Your task to perform on an android device: View the shopping cart on newegg. Search for "razer huntsman" on newegg, select the first entry, add it to the cart, then select checkout. Image 0: 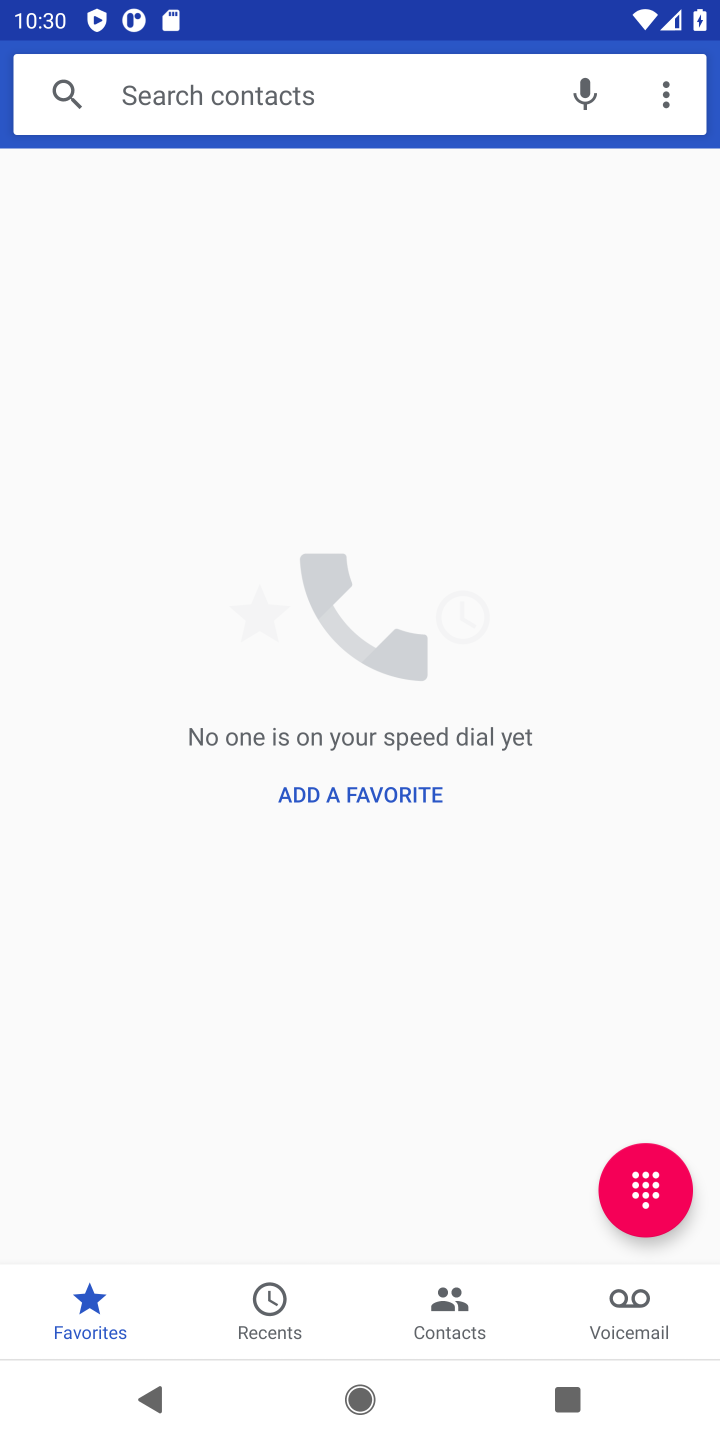
Step 0: press home button
Your task to perform on an android device: View the shopping cart on newegg. Search for "razer huntsman" on newegg, select the first entry, add it to the cart, then select checkout. Image 1: 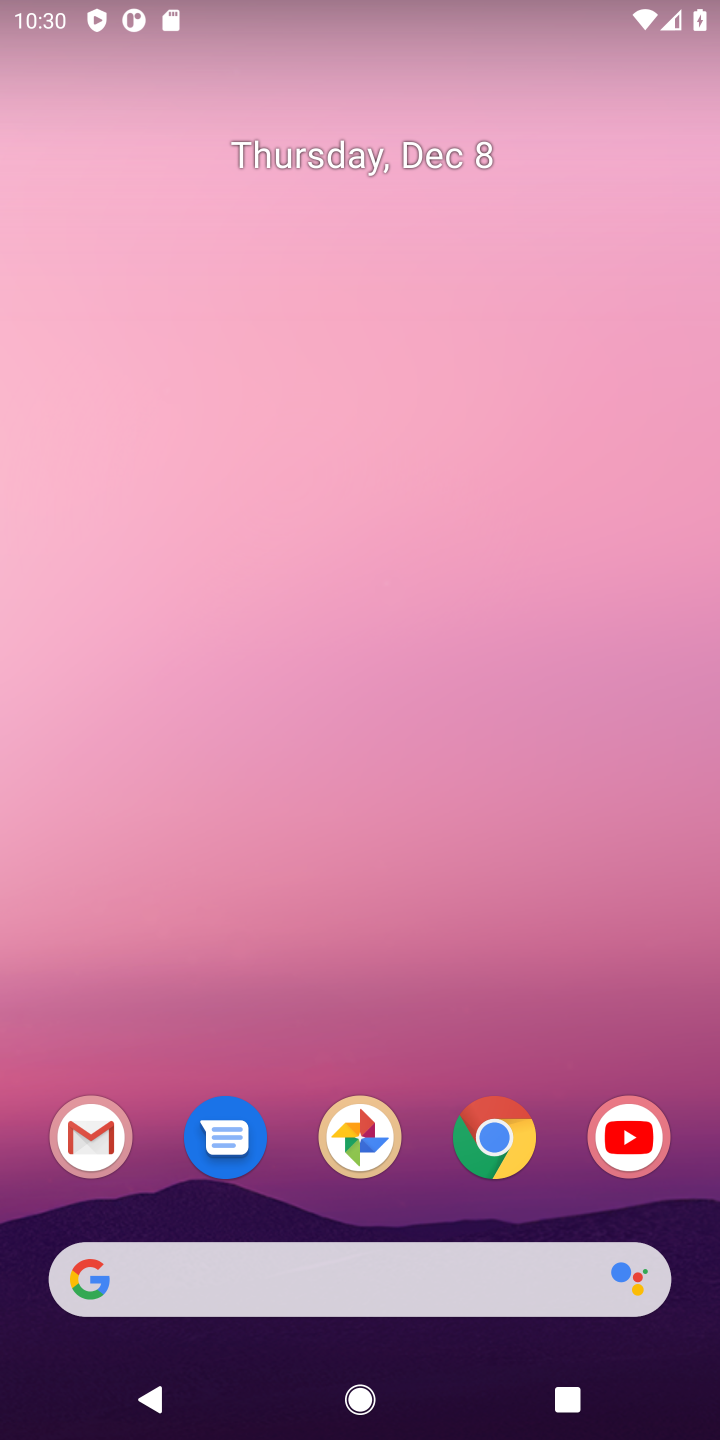
Step 1: click (499, 1123)
Your task to perform on an android device: View the shopping cart on newegg. Search for "razer huntsman" on newegg, select the first entry, add it to the cart, then select checkout. Image 2: 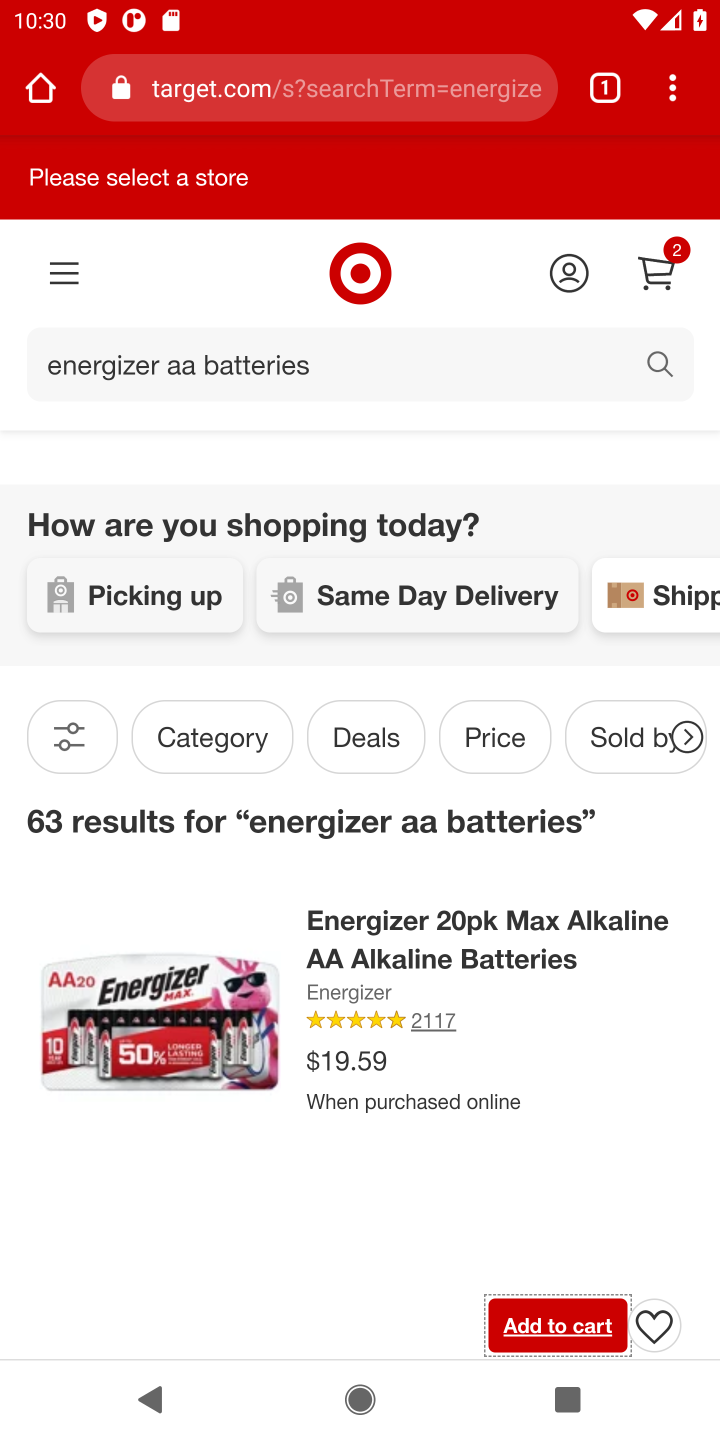
Step 2: click (398, 77)
Your task to perform on an android device: View the shopping cart on newegg. Search for "razer huntsman" on newegg, select the first entry, add it to the cart, then select checkout. Image 3: 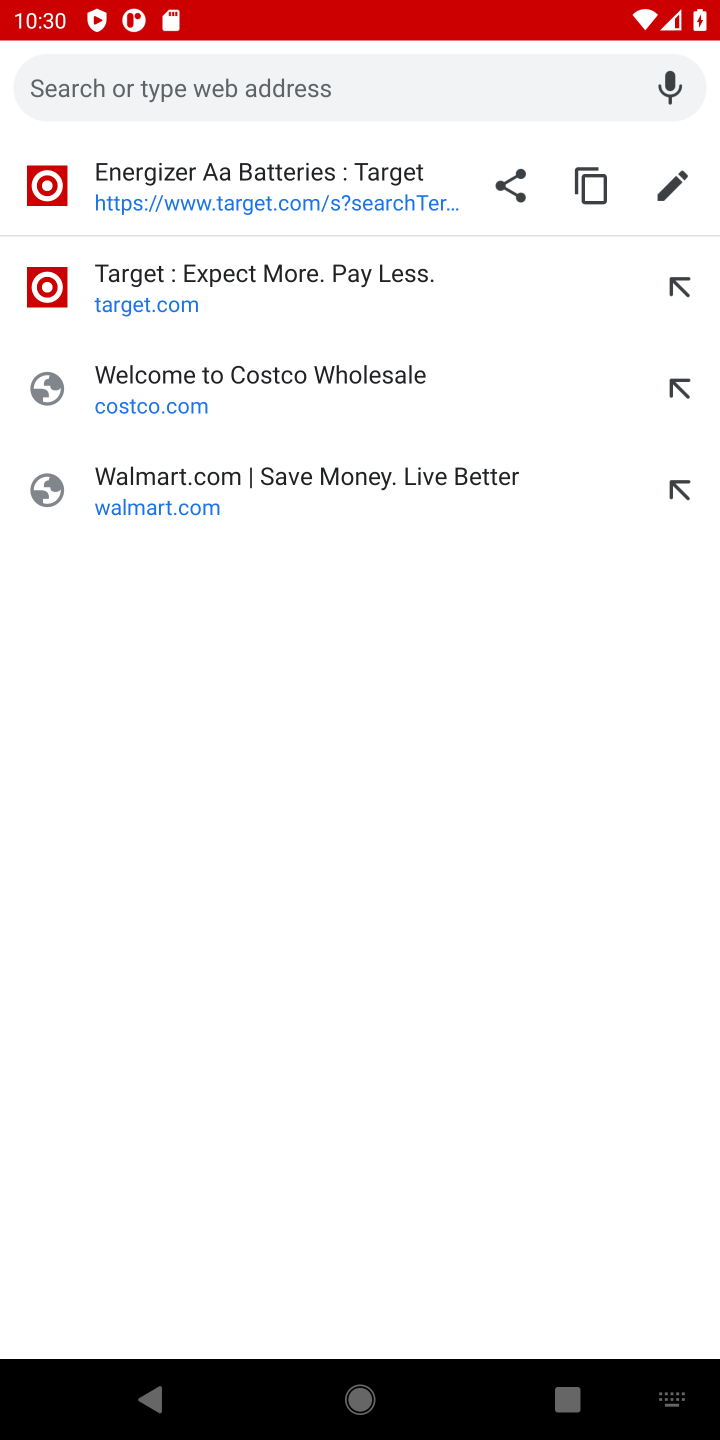
Step 3: type "newegg"
Your task to perform on an android device: View the shopping cart on newegg. Search for "razer huntsman" on newegg, select the first entry, add it to the cart, then select checkout. Image 4: 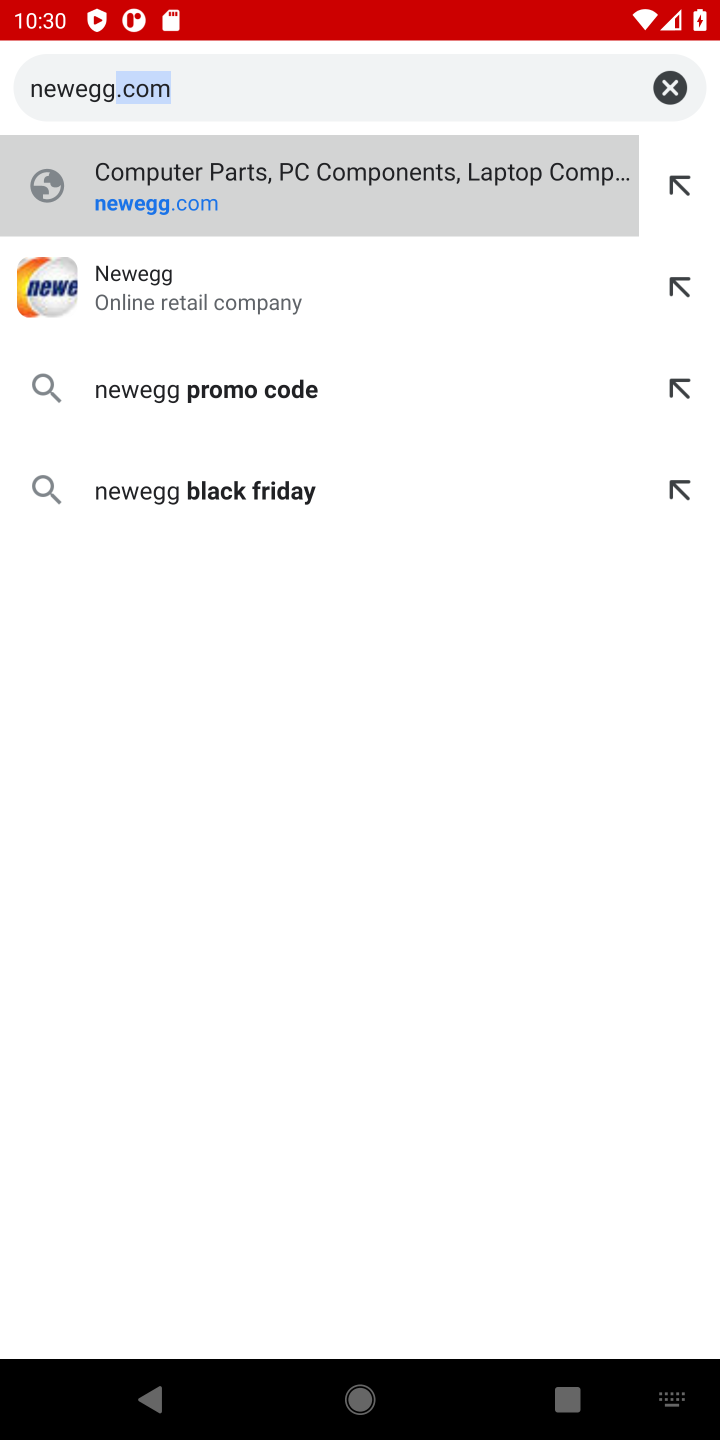
Step 4: click (176, 187)
Your task to perform on an android device: View the shopping cart on newegg. Search for "razer huntsman" on newegg, select the first entry, add it to the cart, then select checkout. Image 5: 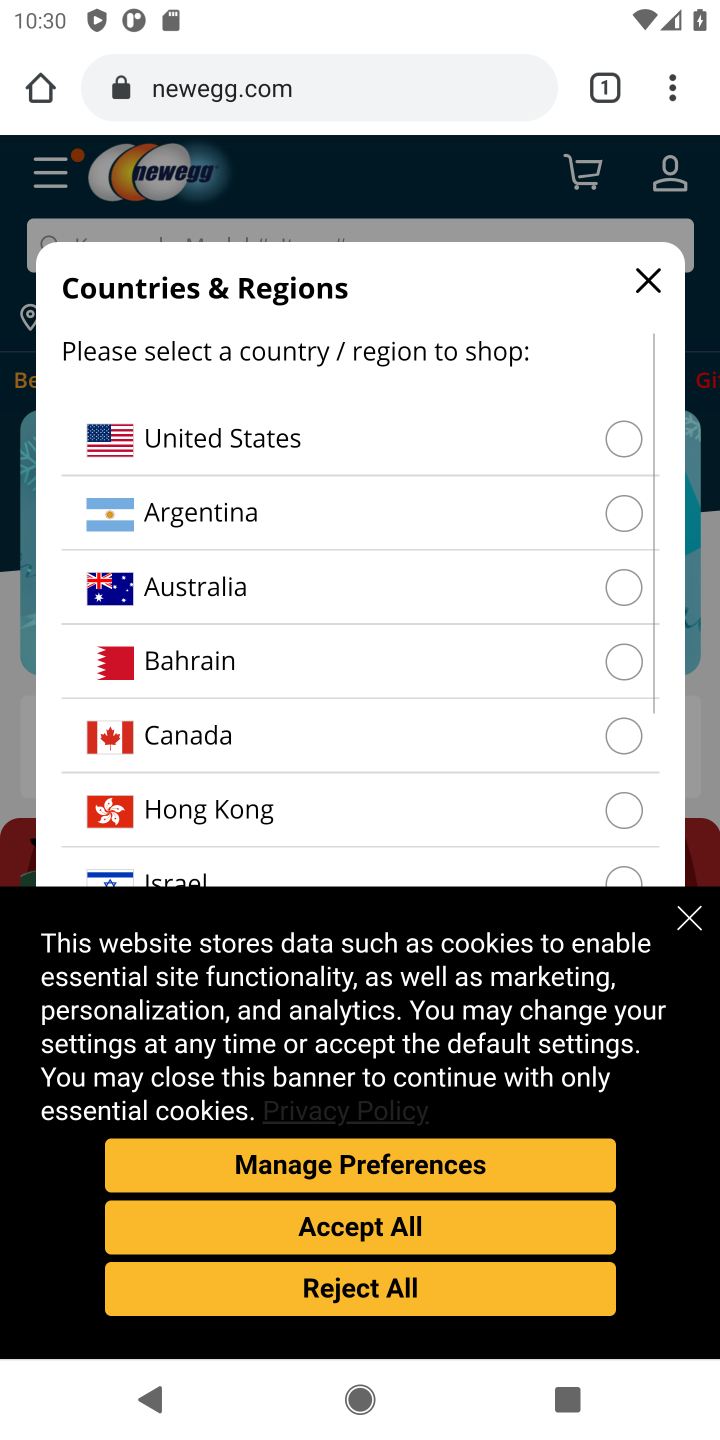
Step 5: click (689, 918)
Your task to perform on an android device: View the shopping cart on newegg. Search for "razer huntsman" on newegg, select the first entry, add it to the cart, then select checkout. Image 6: 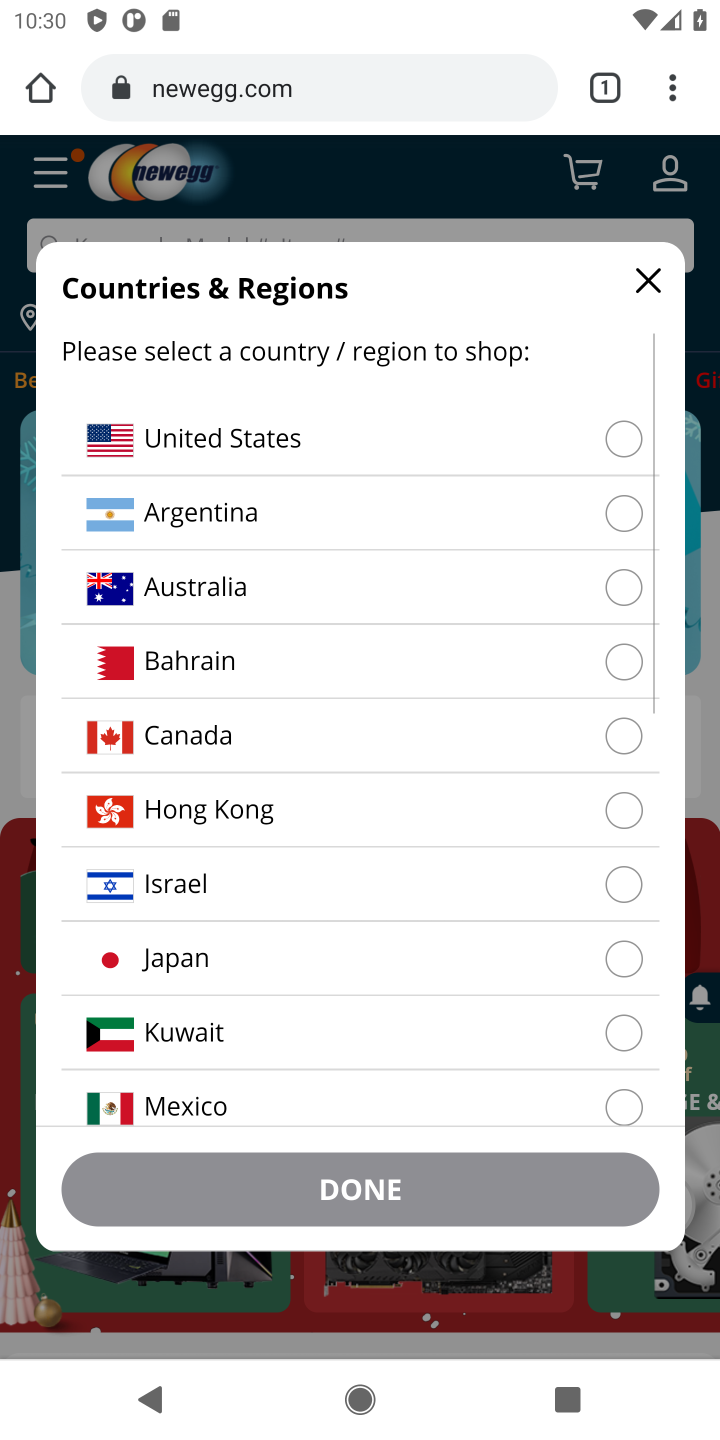
Step 6: click (639, 283)
Your task to perform on an android device: View the shopping cart on newegg. Search for "razer huntsman" on newegg, select the first entry, add it to the cart, then select checkout. Image 7: 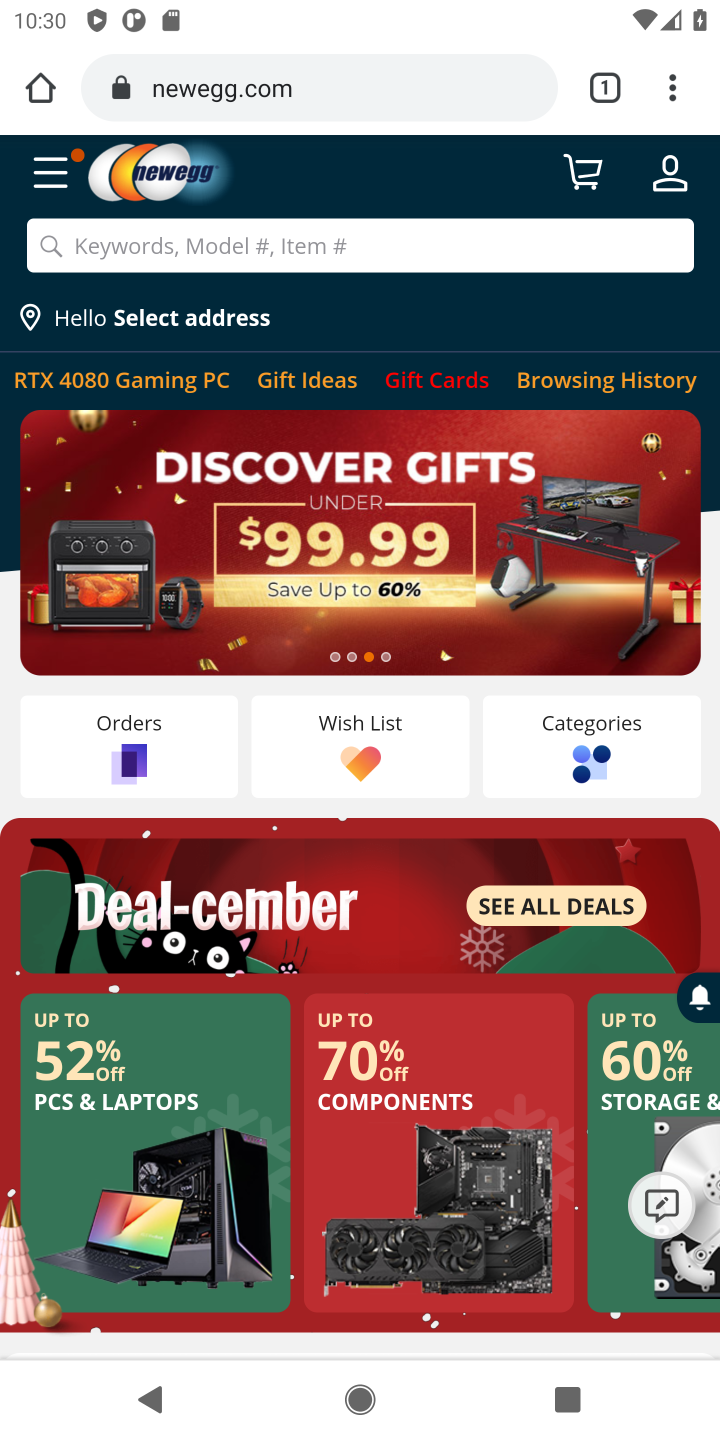
Step 7: click (370, 244)
Your task to perform on an android device: View the shopping cart on newegg. Search for "razer huntsman" on newegg, select the first entry, add it to the cart, then select checkout. Image 8: 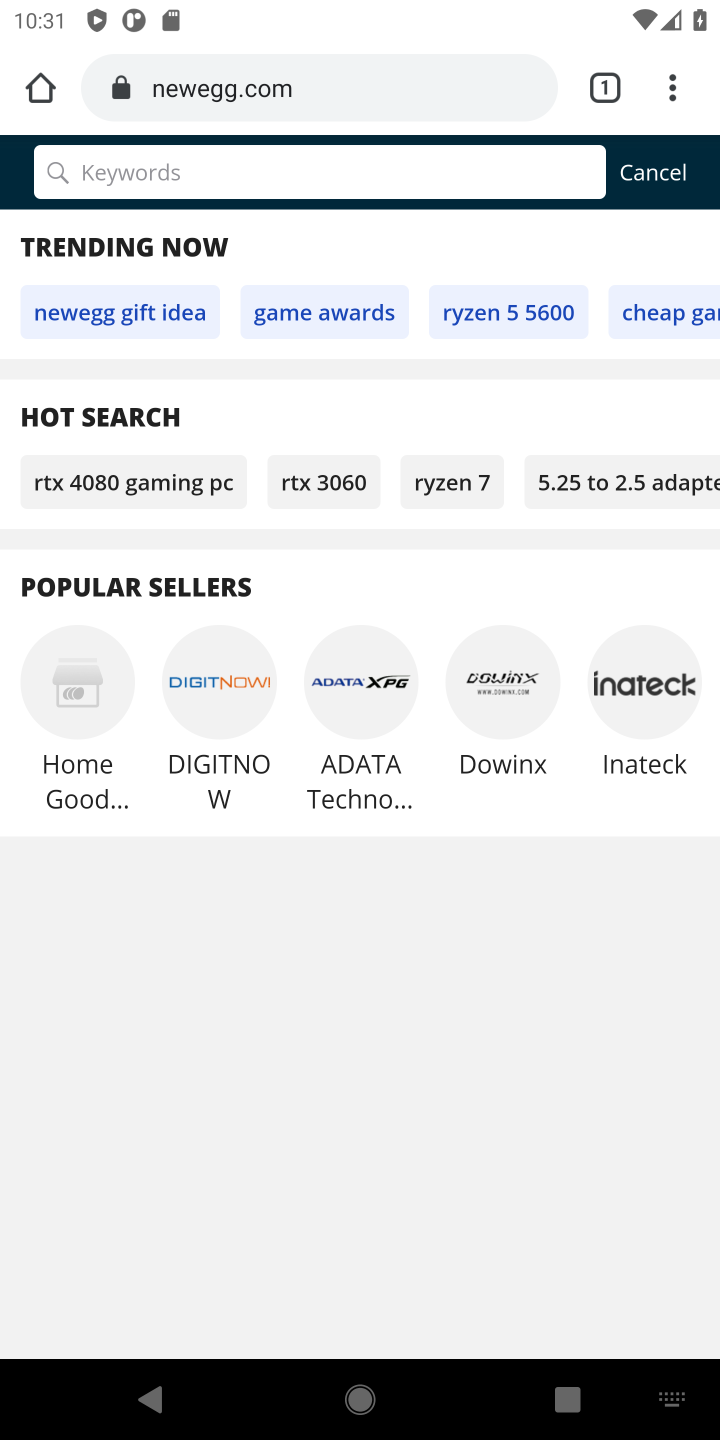
Step 8: type "razer huntsman"
Your task to perform on an android device: View the shopping cart on newegg. Search for "razer huntsman" on newegg, select the first entry, add it to the cart, then select checkout. Image 9: 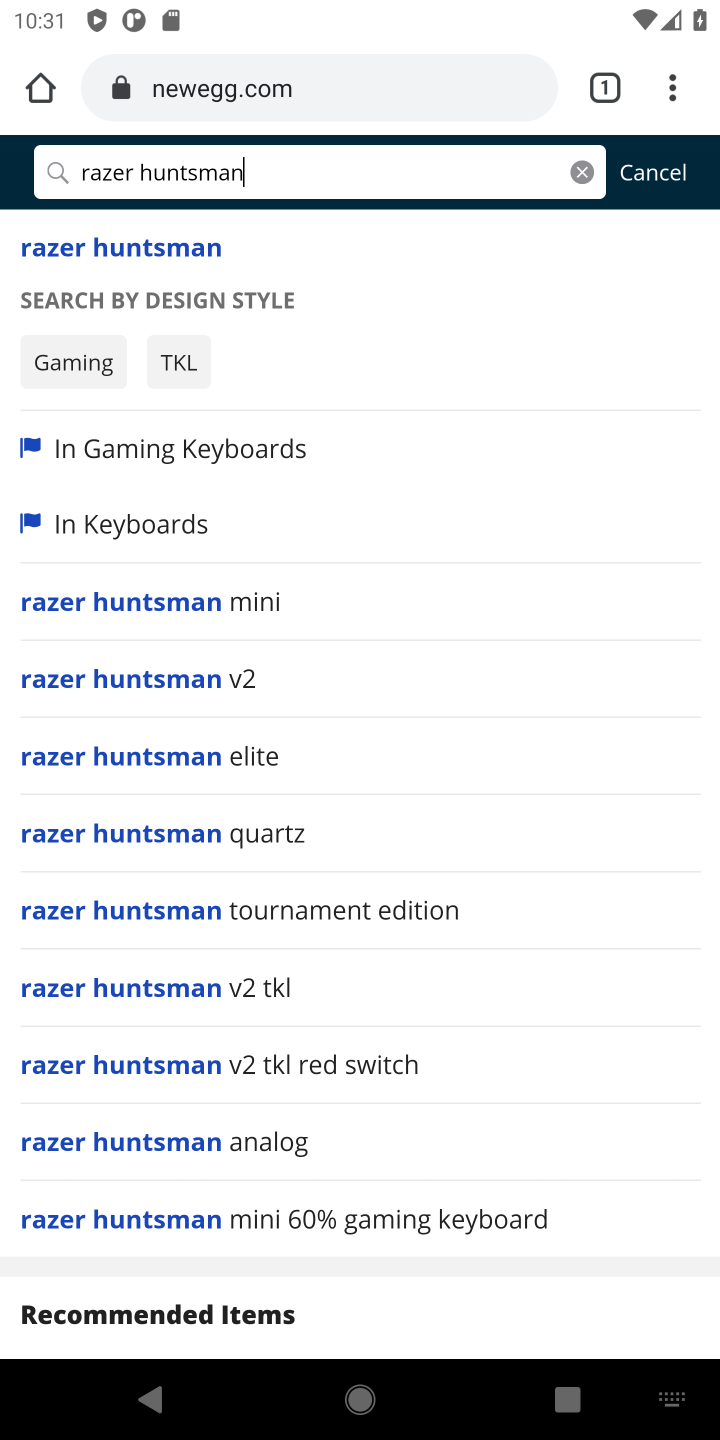
Step 9: click (178, 256)
Your task to perform on an android device: View the shopping cart on newegg. Search for "razer huntsman" on newegg, select the first entry, add it to the cart, then select checkout. Image 10: 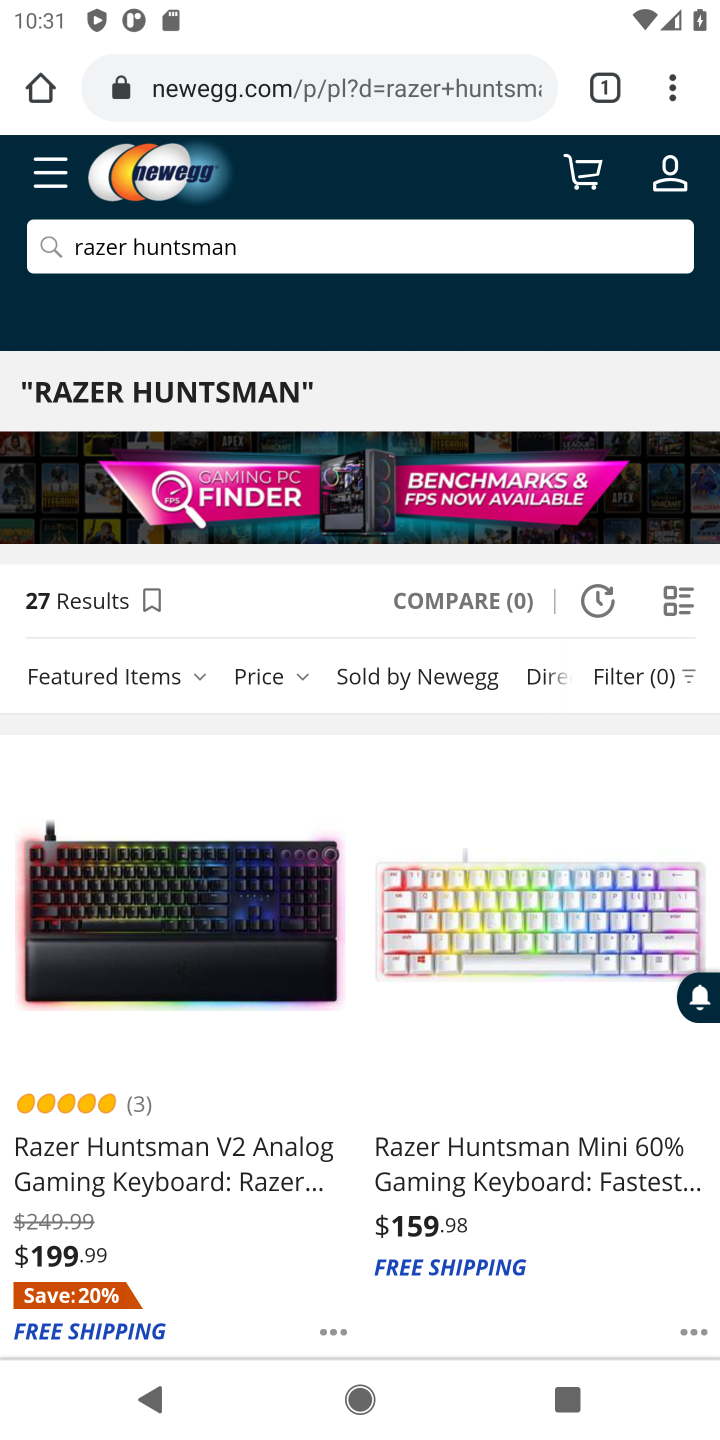
Step 10: click (197, 813)
Your task to perform on an android device: View the shopping cart on newegg. Search for "razer huntsman" on newegg, select the first entry, add it to the cart, then select checkout. Image 11: 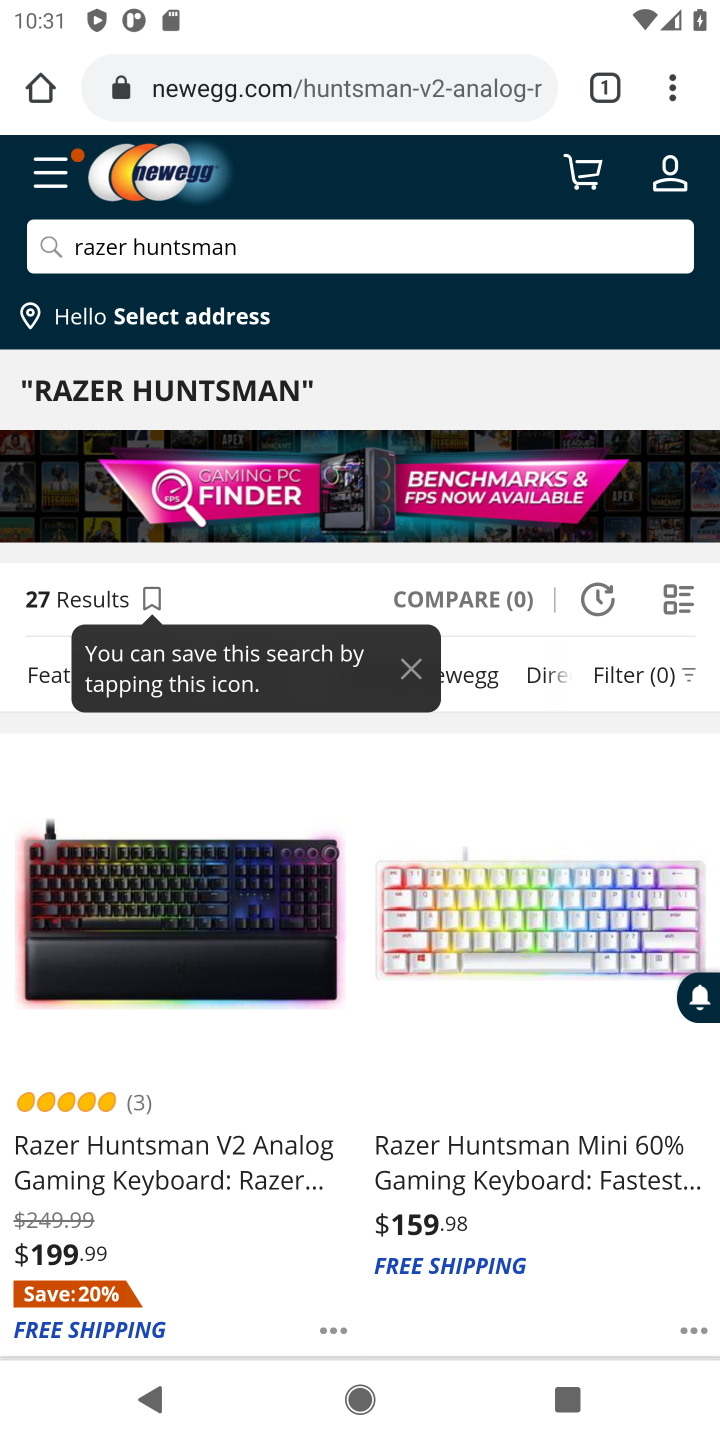
Step 11: click (227, 918)
Your task to perform on an android device: View the shopping cart on newegg. Search for "razer huntsman" on newegg, select the first entry, add it to the cart, then select checkout. Image 12: 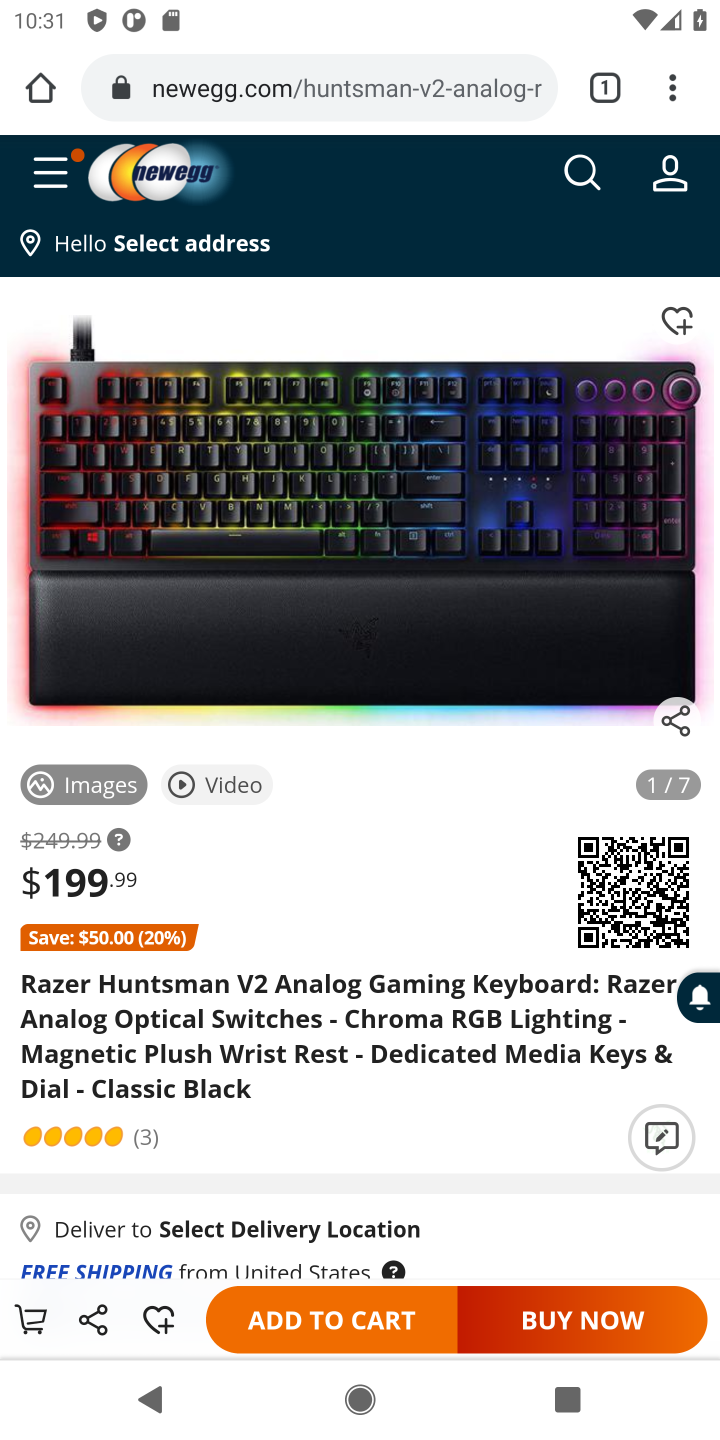
Step 12: click (315, 1313)
Your task to perform on an android device: View the shopping cart on newegg. Search for "razer huntsman" on newegg, select the first entry, add it to the cart, then select checkout. Image 13: 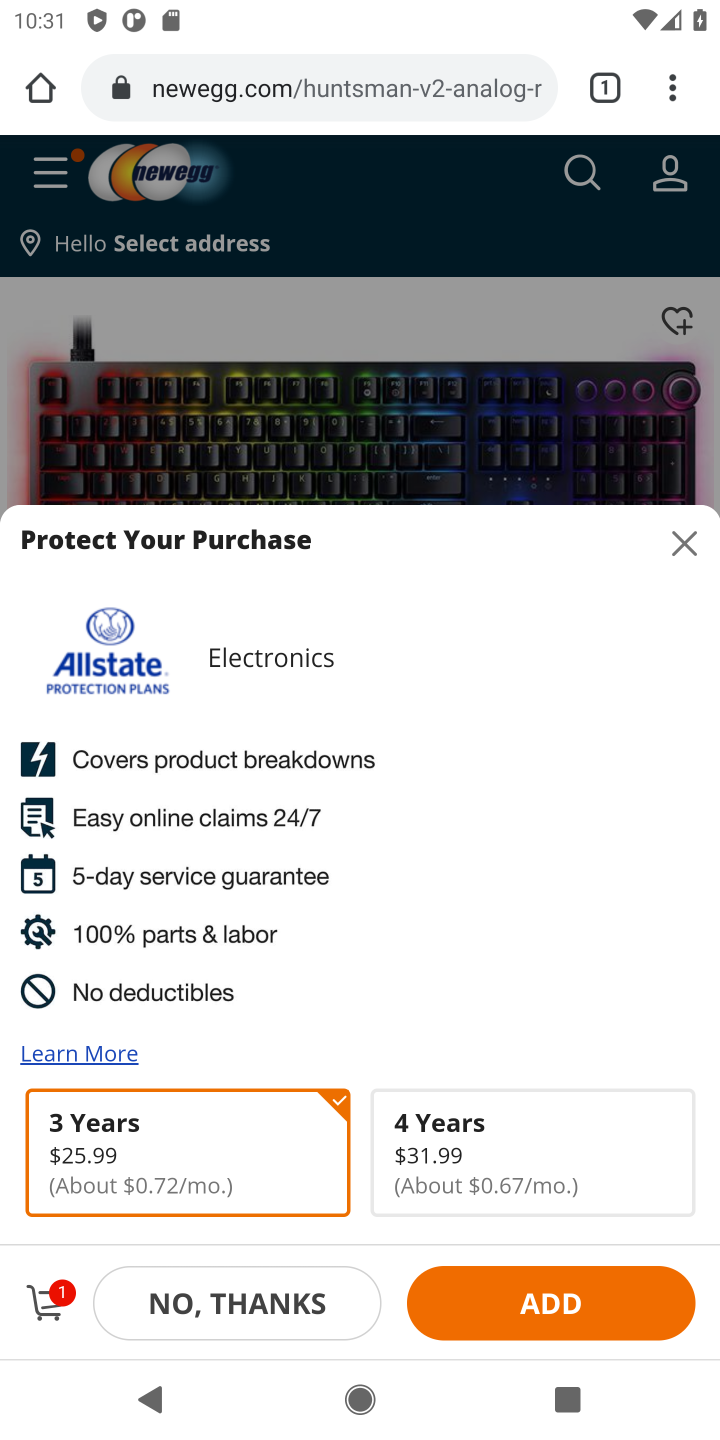
Step 13: click (270, 1309)
Your task to perform on an android device: View the shopping cart on newegg. Search for "razer huntsman" on newegg, select the first entry, add it to the cart, then select checkout. Image 14: 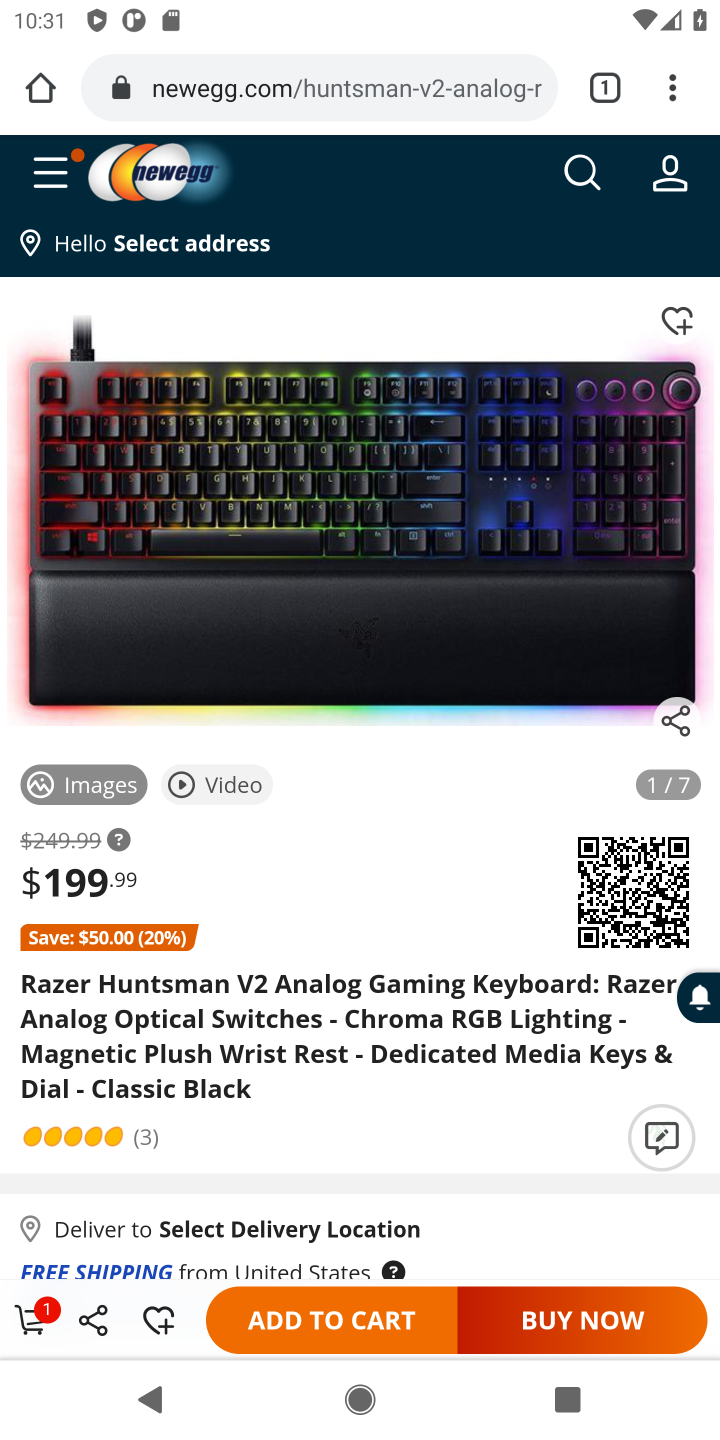
Step 14: click (34, 1320)
Your task to perform on an android device: View the shopping cart on newegg. Search for "razer huntsman" on newegg, select the first entry, add it to the cart, then select checkout. Image 15: 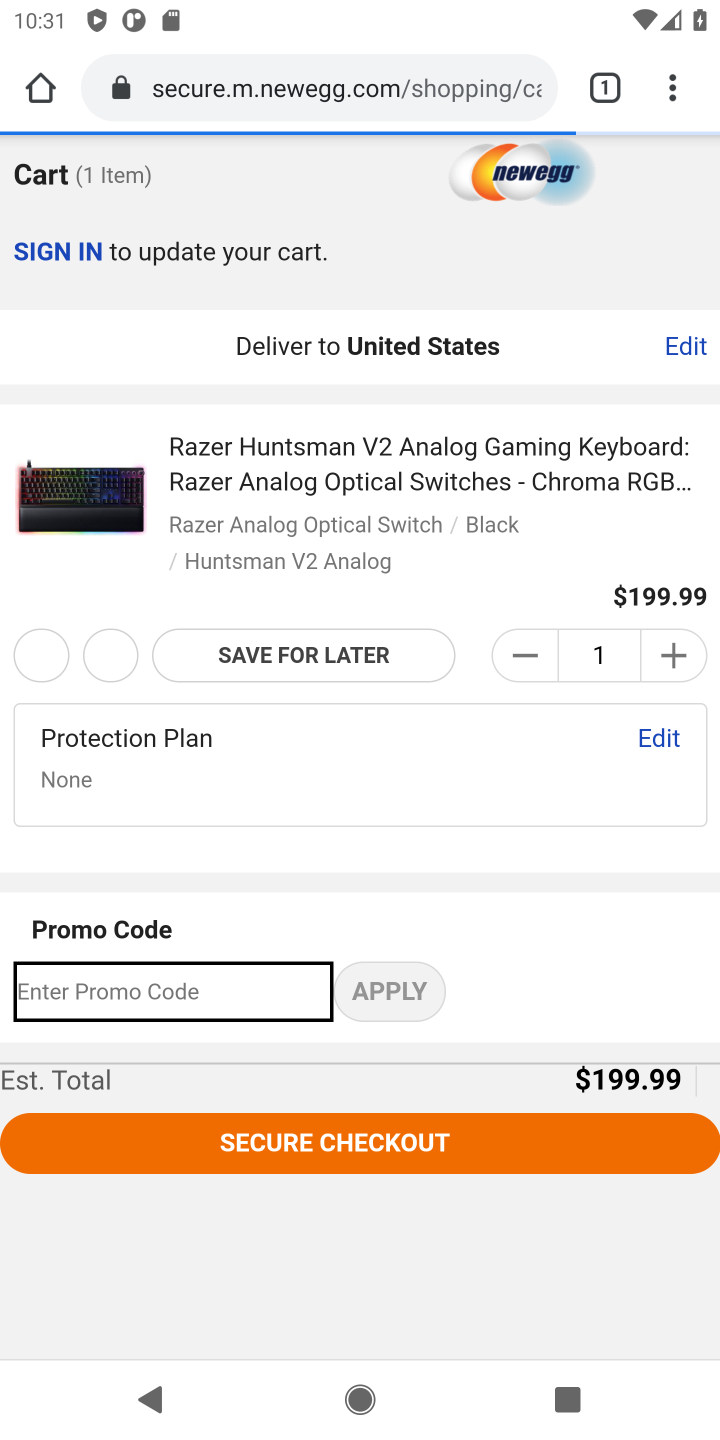
Step 15: click (291, 1143)
Your task to perform on an android device: View the shopping cart on newegg. Search for "razer huntsman" on newegg, select the first entry, add it to the cart, then select checkout. Image 16: 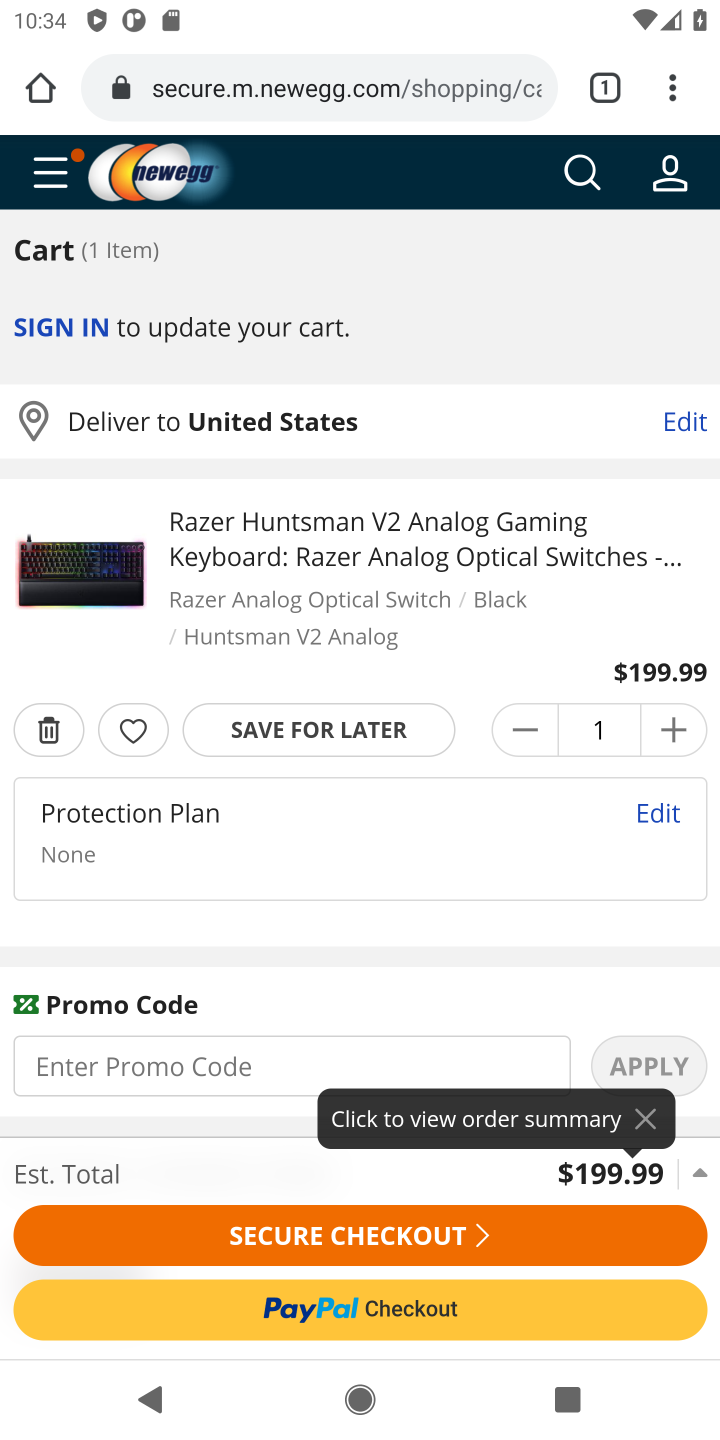
Step 16: click (323, 1239)
Your task to perform on an android device: View the shopping cart on newegg. Search for "razer huntsman" on newegg, select the first entry, add it to the cart, then select checkout. Image 17: 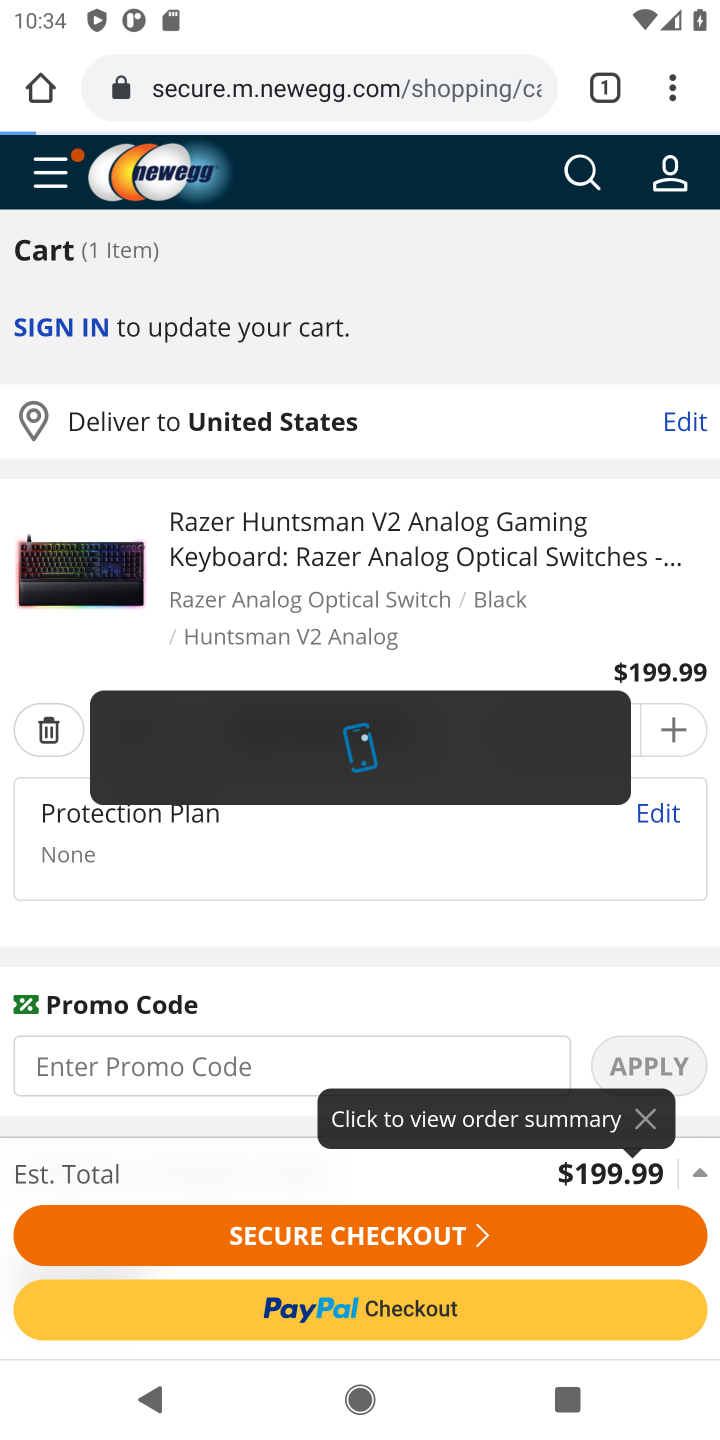
Step 17: task complete